Your task to perform on an android device: toggle show notifications on the lock screen Image 0: 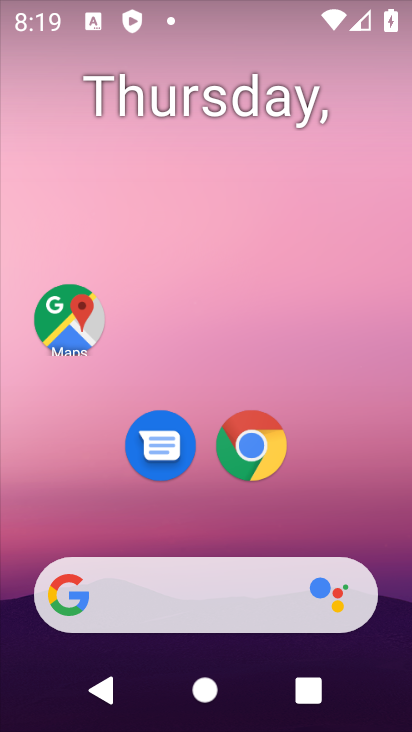
Step 0: drag from (30, 605) to (273, 174)
Your task to perform on an android device: toggle show notifications on the lock screen Image 1: 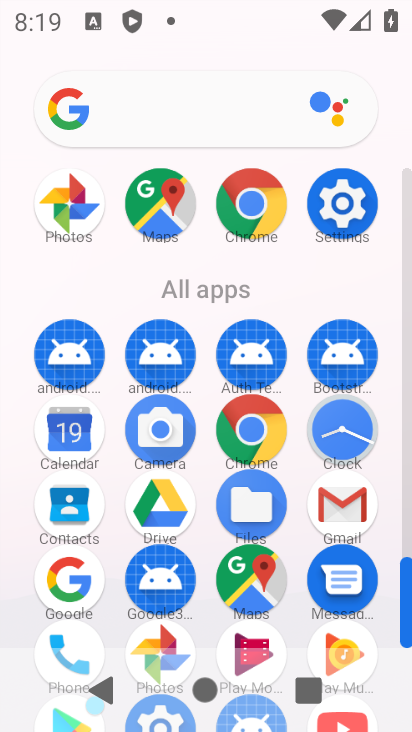
Step 1: click (327, 199)
Your task to perform on an android device: toggle show notifications on the lock screen Image 2: 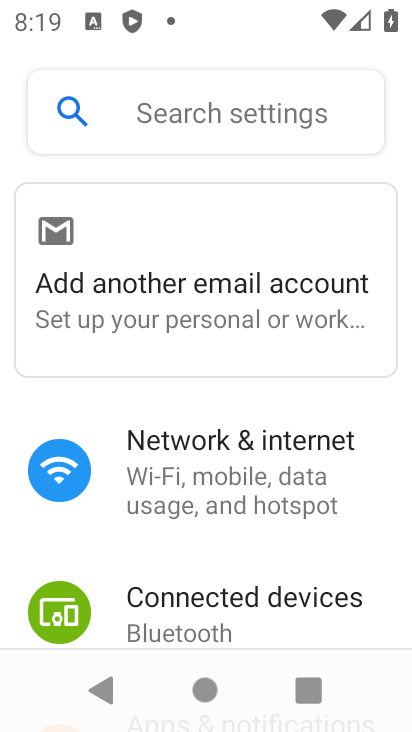
Step 2: drag from (2, 624) to (326, 225)
Your task to perform on an android device: toggle show notifications on the lock screen Image 3: 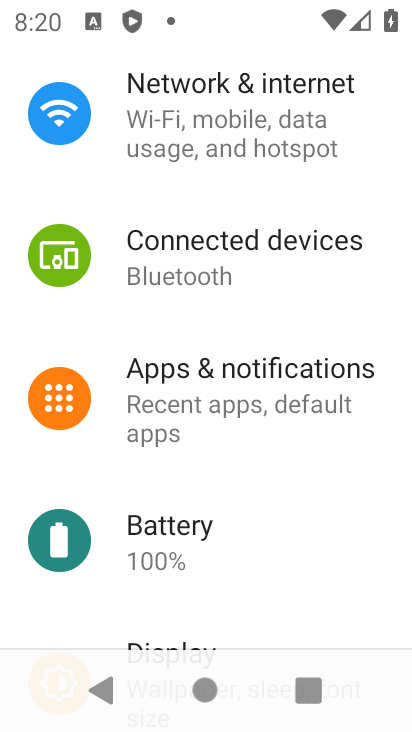
Step 3: click (264, 402)
Your task to perform on an android device: toggle show notifications on the lock screen Image 4: 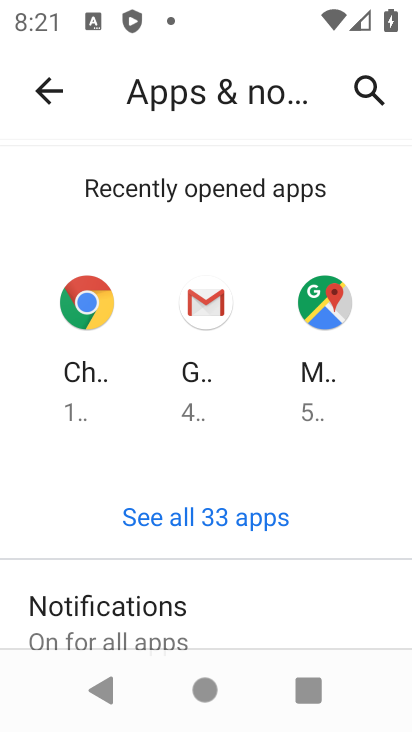
Step 4: click (273, 596)
Your task to perform on an android device: toggle show notifications on the lock screen Image 5: 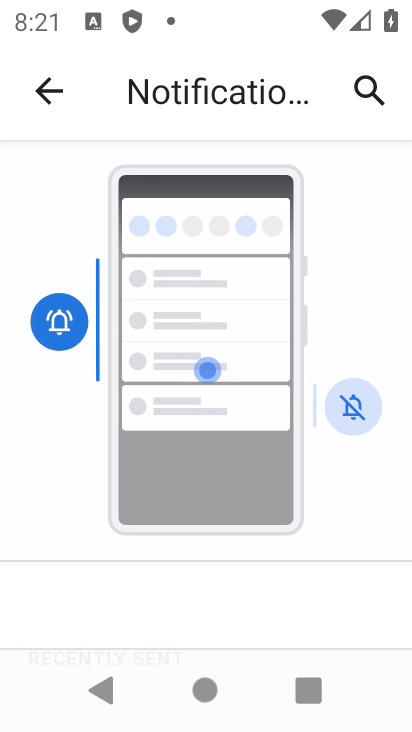
Step 5: drag from (12, 604) to (238, 144)
Your task to perform on an android device: toggle show notifications on the lock screen Image 6: 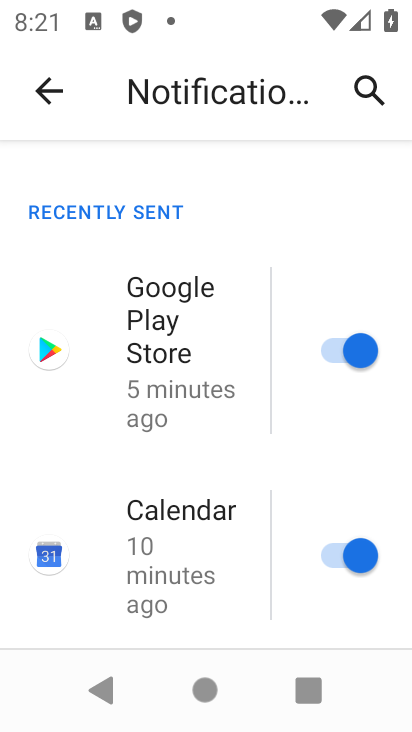
Step 6: drag from (108, 396) to (276, 113)
Your task to perform on an android device: toggle show notifications on the lock screen Image 7: 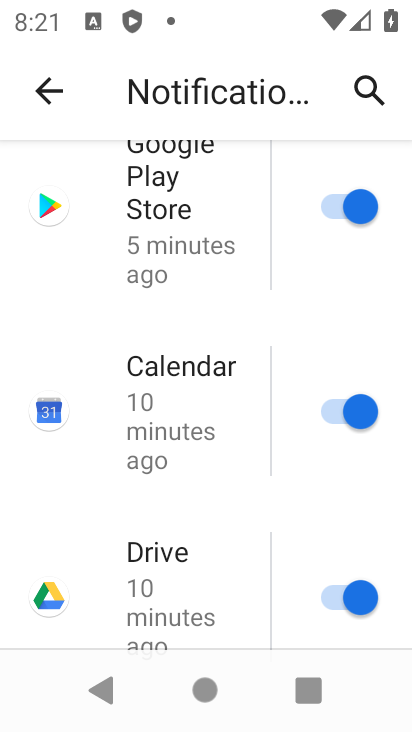
Step 7: drag from (20, 572) to (291, 159)
Your task to perform on an android device: toggle show notifications on the lock screen Image 8: 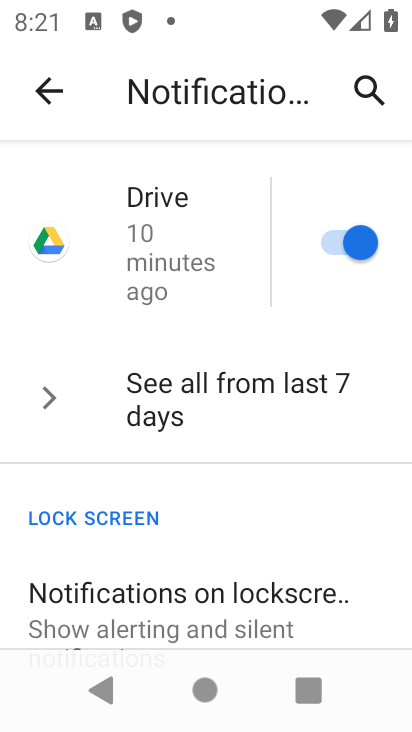
Step 8: drag from (48, 520) to (268, 213)
Your task to perform on an android device: toggle show notifications on the lock screen Image 9: 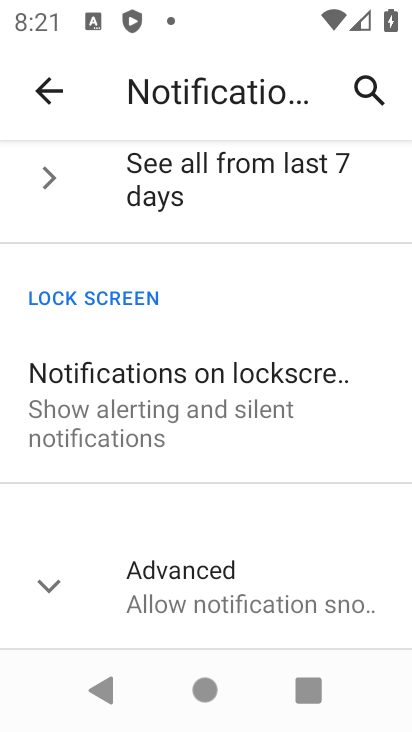
Step 9: click (190, 391)
Your task to perform on an android device: toggle show notifications on the lock screen Image 10: 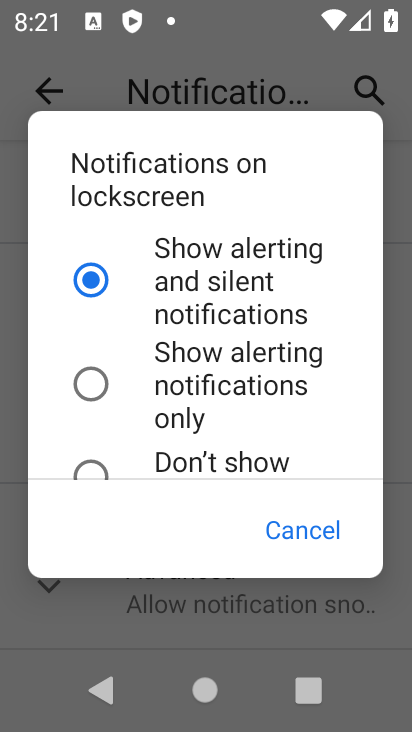
Step 10: task complete